Your task to perform on an android device: allow cookies in the chrome app Image 0: 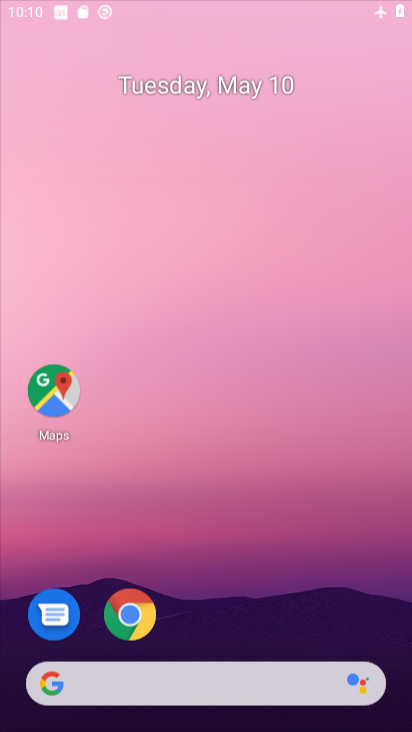
Step 0: click (323, 239)
Your task to perform on an android device: allow cookies in the chrome app Image 1: 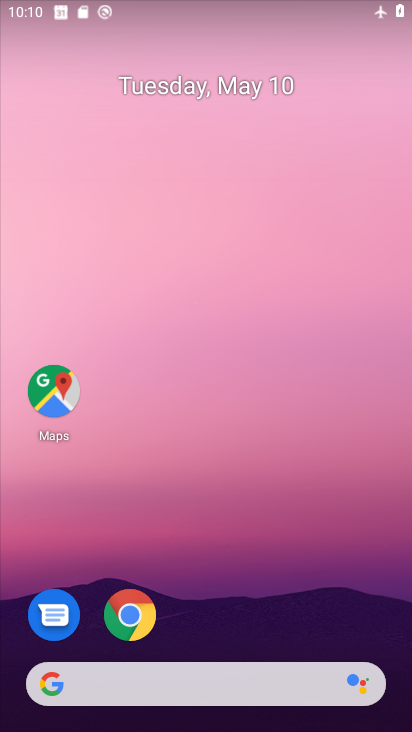
Step 1: drag from (191, 564) to (270, 92)
Your task to perform on an android device: allow cookies in the chrome app Image 2: 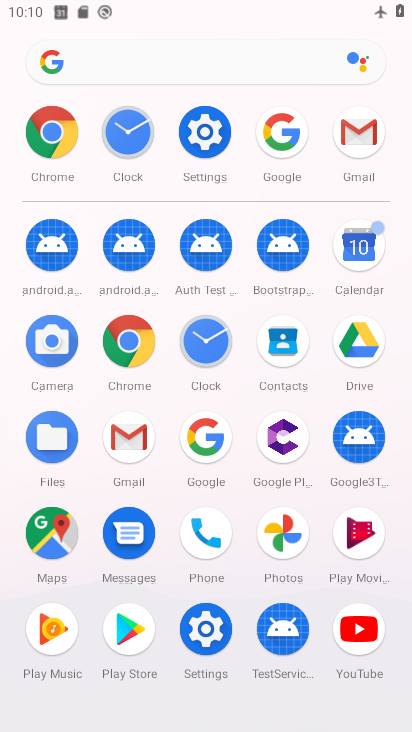
Step 2: click (125, 346)
Your task to perform on an android device: allow cookies in the chrome app Image 3: 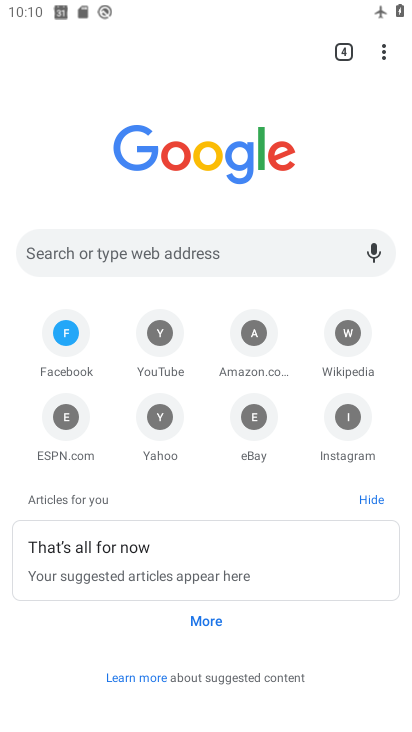
Step 3: drag from (378, 57) to (207, 443)
Your task to perform on an android device: allow cookies in the chrome app Image 4: 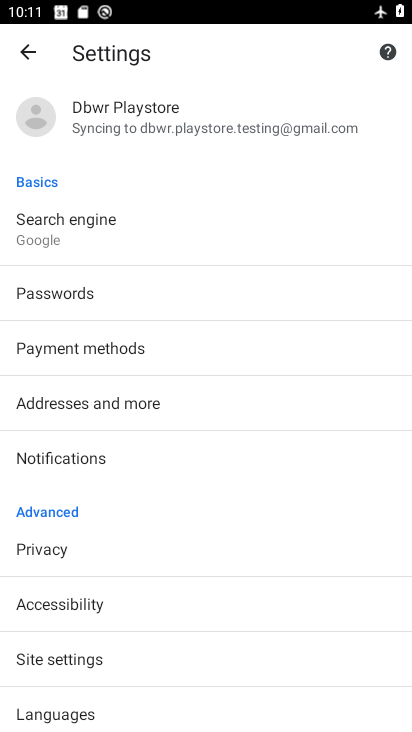
Step 4: click (74, 671)
Your task to perform on an android device: allow cookies in the chrome app Image 5: 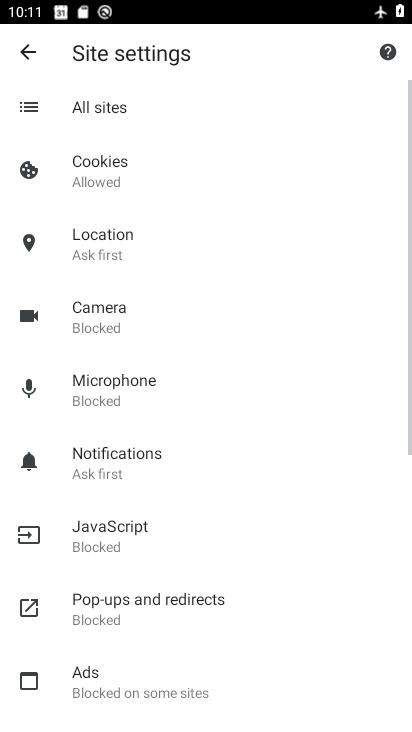
Step 5: click (137, 160)
Your task to perform on an android device: allow cookies in the chrome app Image 6: 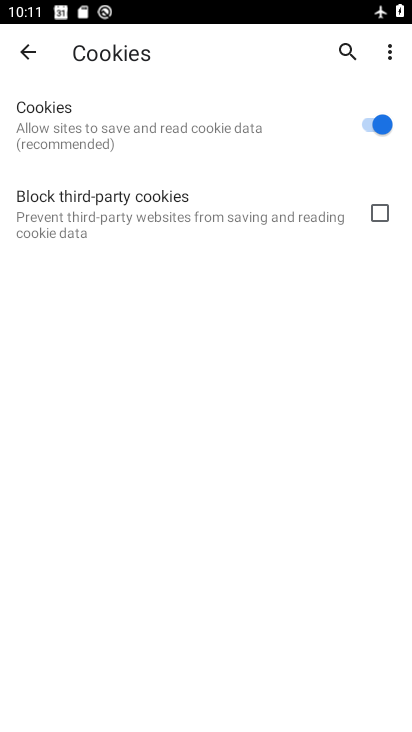
Step 6: task complete